Your task to perform on an android device: Open Maps and search for coffee Image 0: 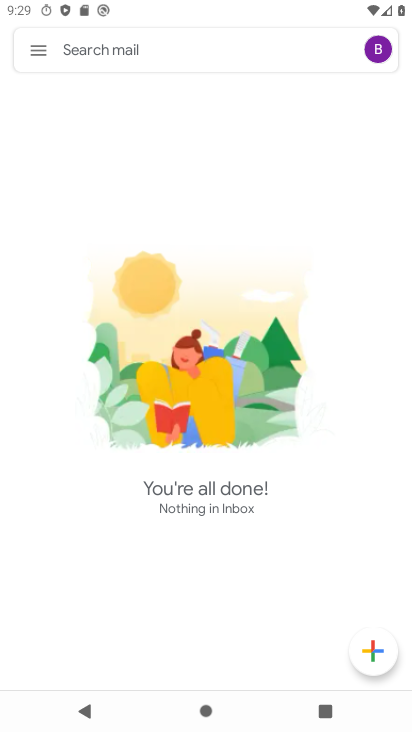
Step 0: press home button
Your task to perform on an android device: Open Maps and search for coffee Image 1: 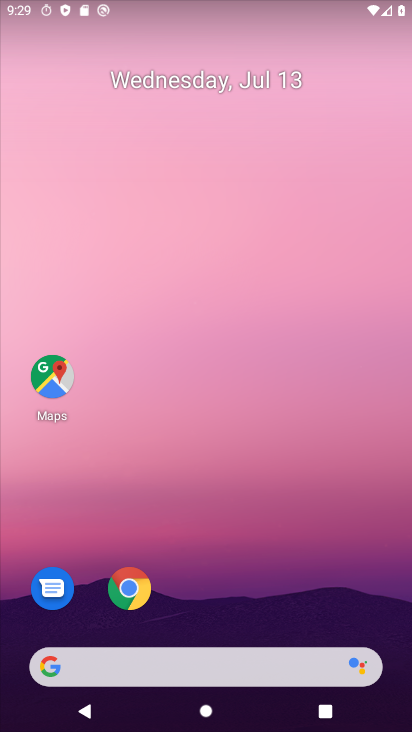
Step 1: click (48, 387)
Your task to perform on an android device: Open Maps and search for coffee Image 2: 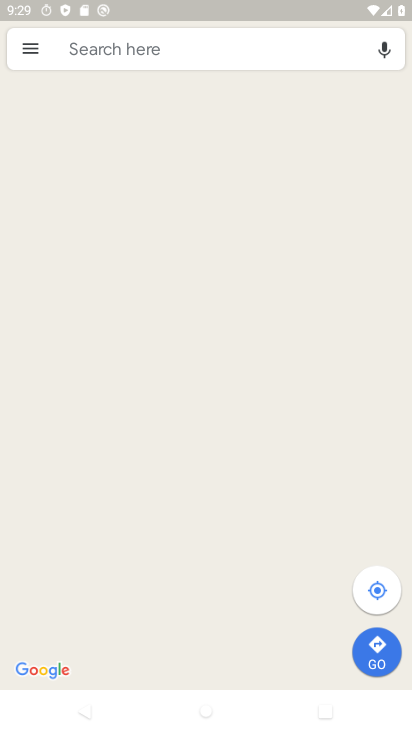
Step 2: click (209, 58)
Your task to perform on an android device: Open Maps and search for coffee Image 3: 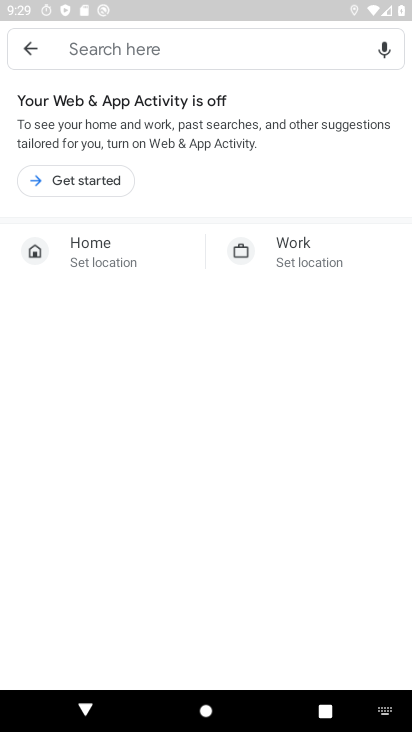
Step 3: type "coffee"
Your task to perform on an android device: Open Maps and search for coffee Image 4: 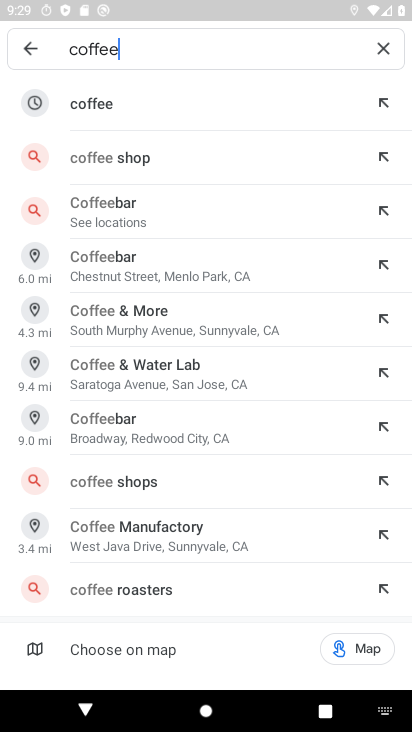
Step 4: click (230, 106)
Your task to perform on an android device: Open Maps and search for coffee Image 5: 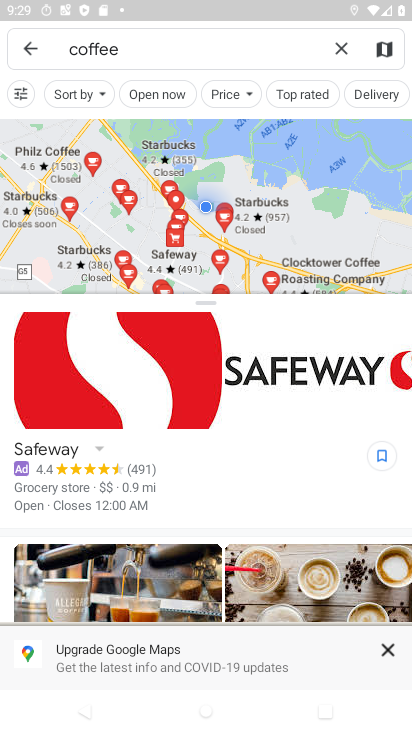
Step 5: task complete